Your task to perform on an android device: turn off location history Image 0: 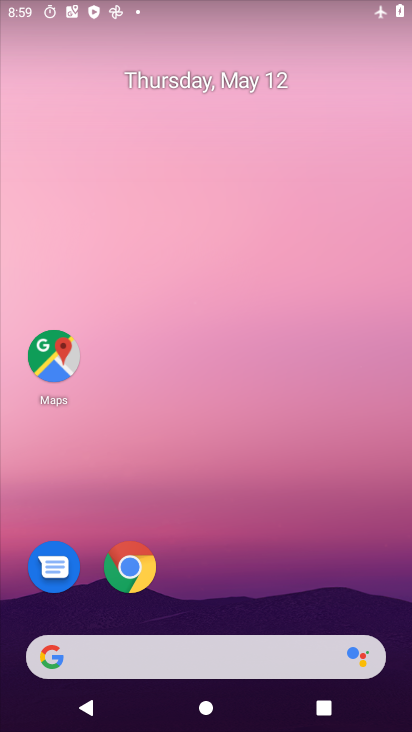
Step 0: drag from (232, 649) to (249, 170)
Your task to perform on an android device: turn off location history Image 1: 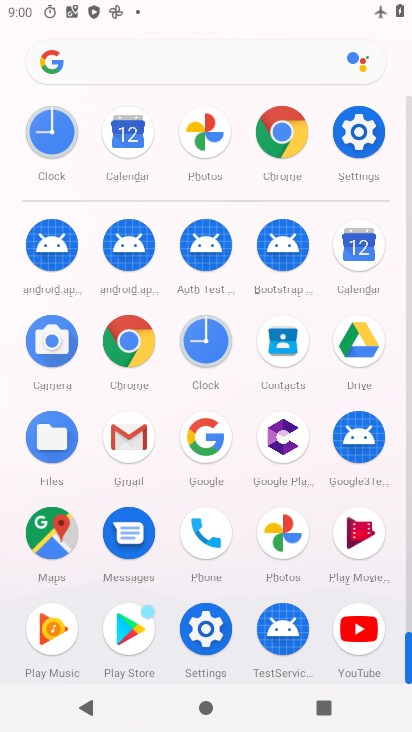
Step 1: click (361, 146)
Your task to perform on an android device: turn off location history Image 2: 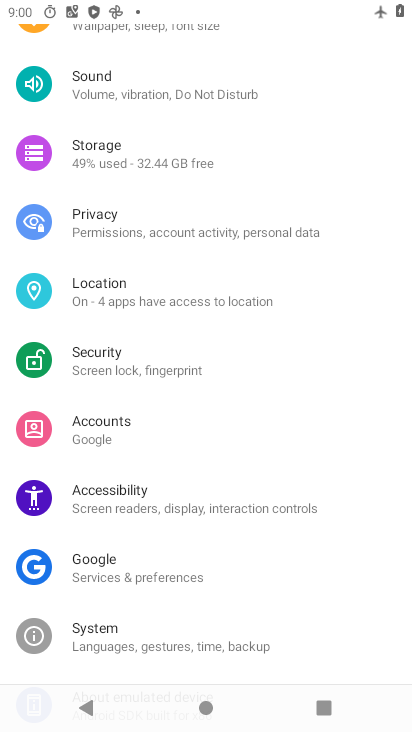
Step 2: click (195, 299)
Your task to perform on an android device: turn off location history Image 3: 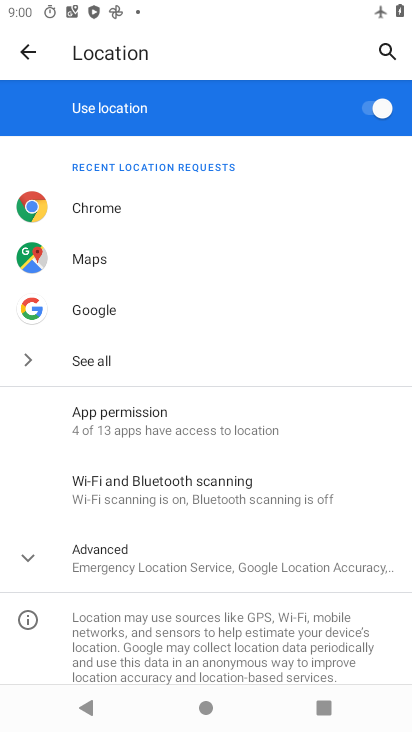
Step 3: click (134, 562)
Your task to perform on an android device: turn off location history Image 4: 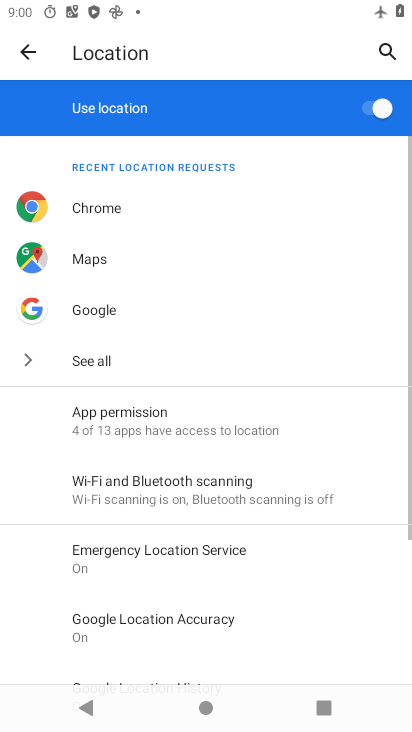
Step 4: drag from (143, 522) to (172, 327)
Your task to perform on an android device: turn off location history Image 5: 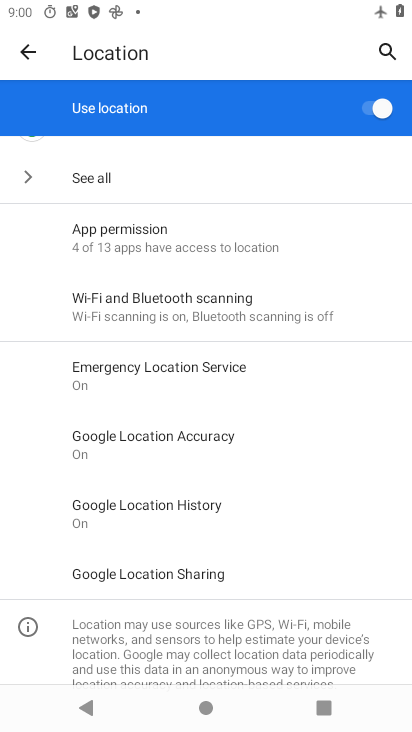
Step 5: click (172, 513)
Your task to perform on an android device: turn off location history Image 6: 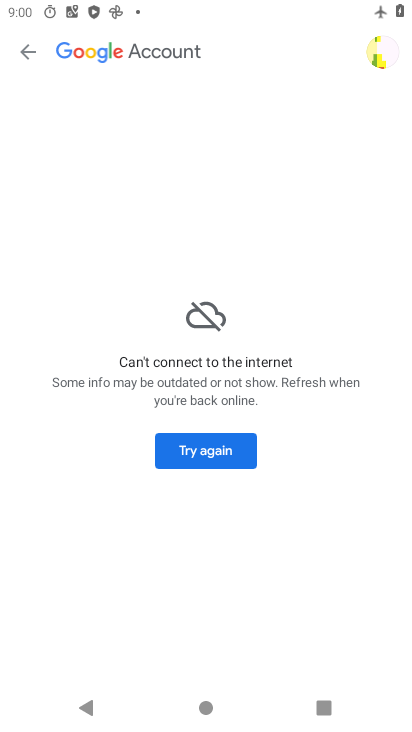
Step 6: task complete